Your task to perform on an android device: Set the phone to "Do not disturb". Image 0: 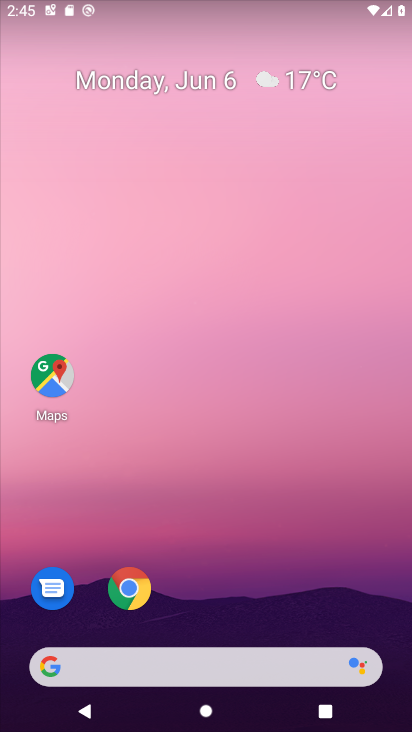
Step 0: drag from (145, 719) to (269, 66)
Your task to perform on an android device: Set the phone to "Do not disturb". Image 1: 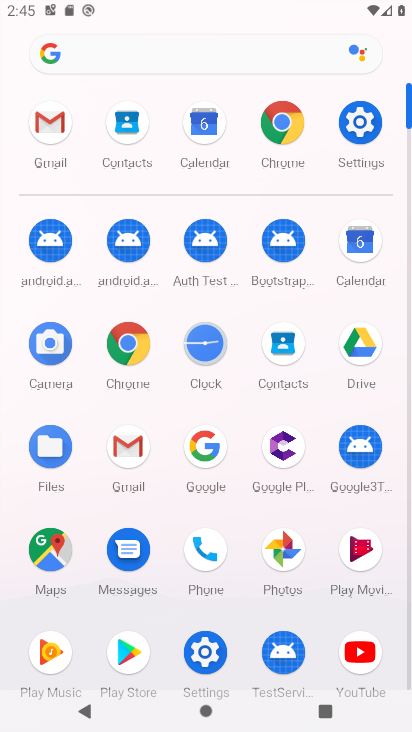
Step 1: click (375, 128)
Your task to perform on an android device: Set the phone to "Do not disturb". Image 2: 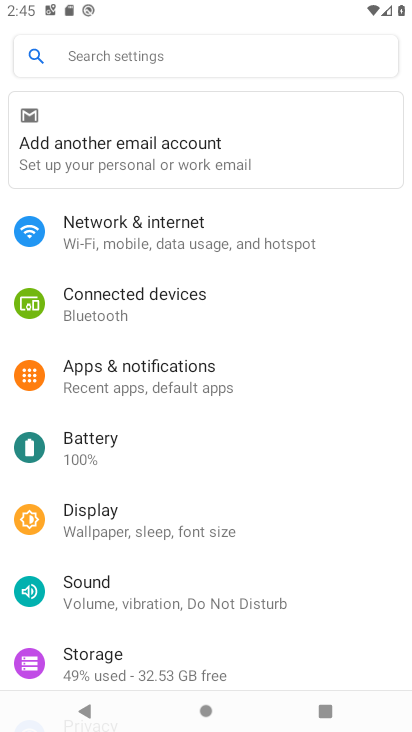
Step 2: click (294, 591)
Your task to perform on an android device: Set the phone to "Do not disturb". Image 3: 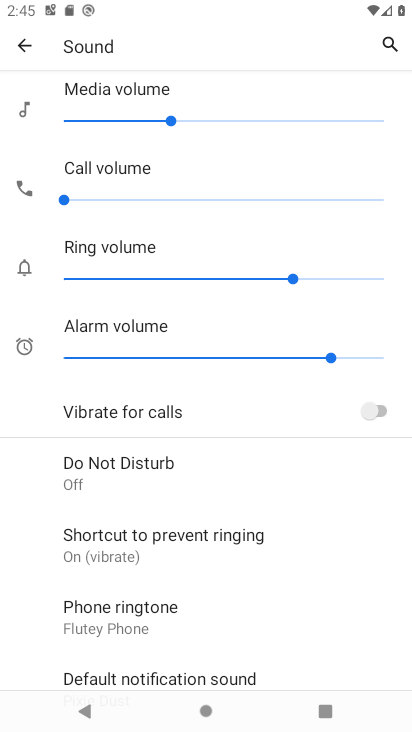
Step 3: drag from (276, 583) to (292, 139)
Your task to perform on an android device: Set the phone to "Do not disturb". Image 4: 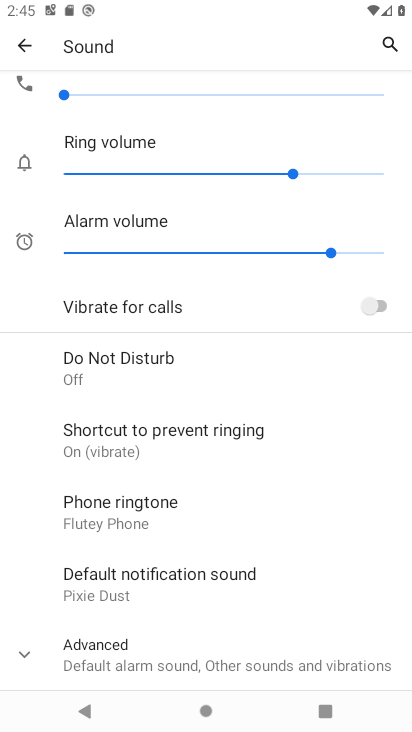
Step 4: click (233, 370)
Your task to perform on an android device: Set the phone to "Do not disturb". Image 5: 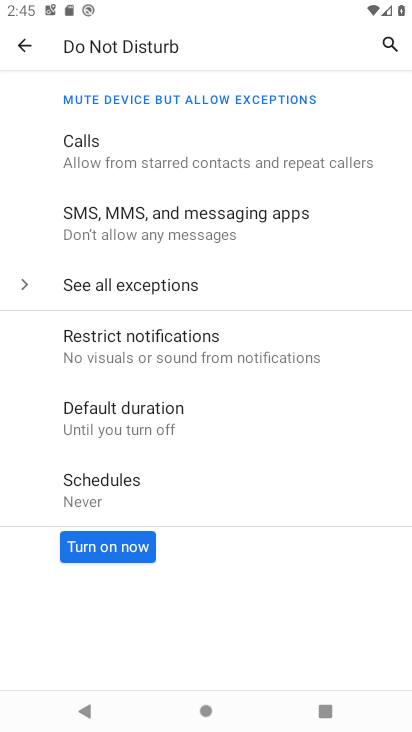
Step 5: click (127, 552)
Your task to perform on an android device: Set the phone to "Do not disturb". Image 6: 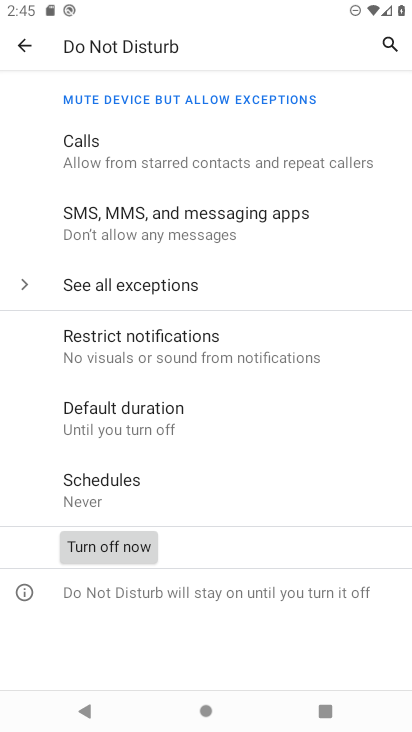
Step 6: task complete